Your task to perform on an android device: change your default location settings in chrome Image 0: 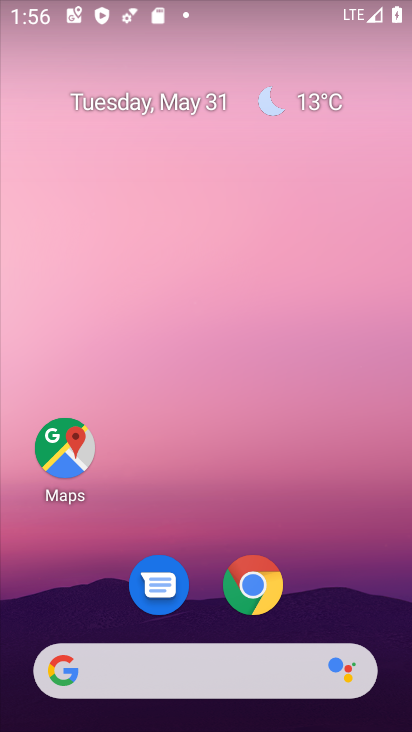
Step 0: click (264, 577)
Your task to perform on an android device: change your default location settings in chrome Image 1: 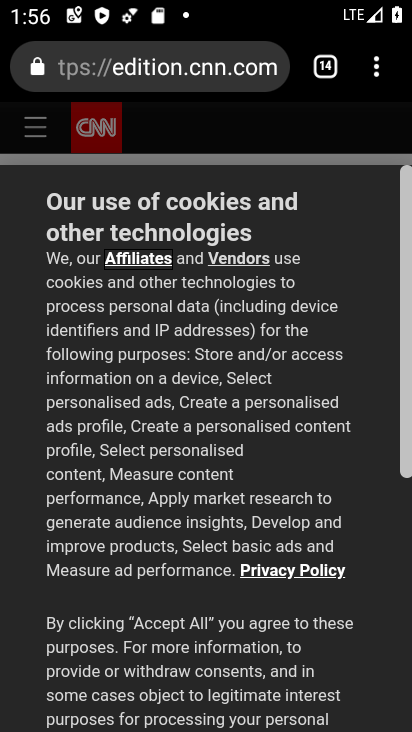
Step 1: click (374, 62)
Your task to perform on an android device: change your default location settings in chrome Image 2: 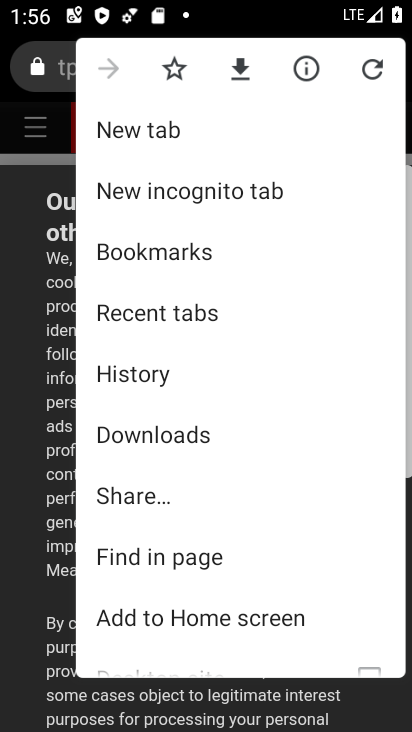
Step 2: drag from (205, 511) to (222, 149)
Your task to perform on an android device: change your default location settings in chrome Image 3: 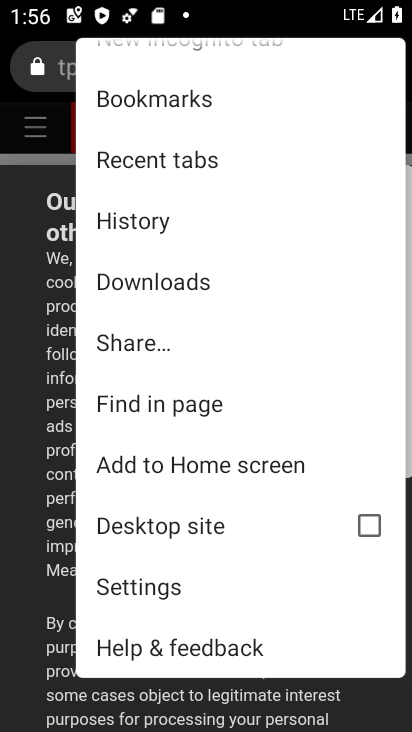
Step 3: click (210, 589)
Your task to perform on an android device: change your default location settings in chrome Image 4: 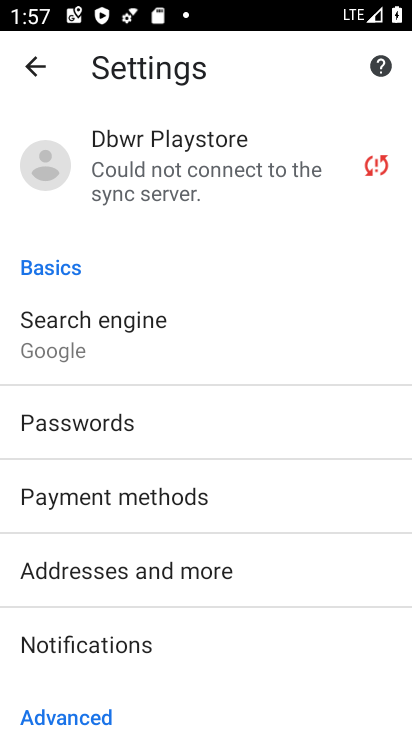
Step 4: drag from (229, 611) to (227, 286)
Your task to perform on an android device: change your default location settings in chrome Image 5: 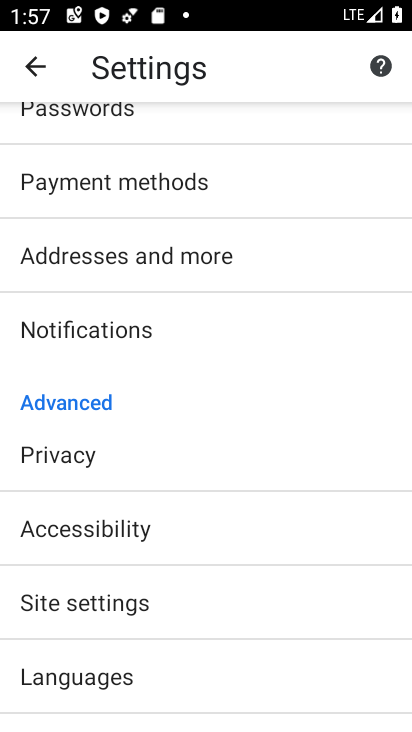
Step 5: click (185, 601)
Your task to perform on an android device: change your default location settings in chrome Image 6: 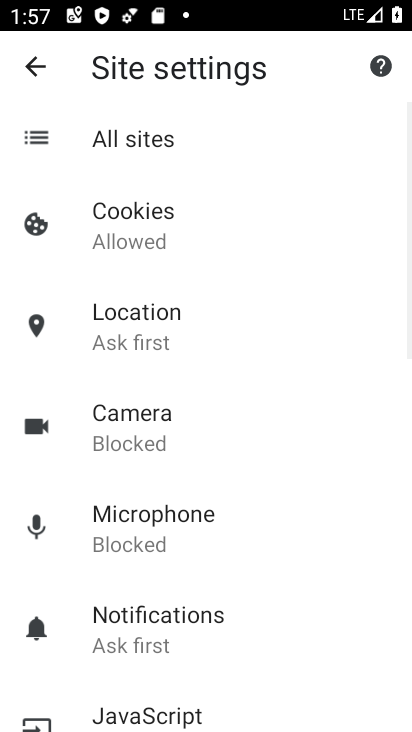
Step 6: click (186, 336)
Your task to perform on an android device: change your default location settings in chrome Image 7: 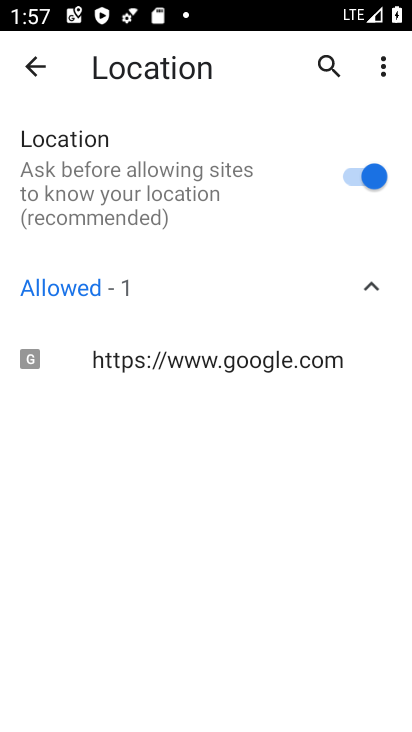
Step 7: click (352, 174)
Your task to perform on an android device: change your default location settings in chrome Image 8: 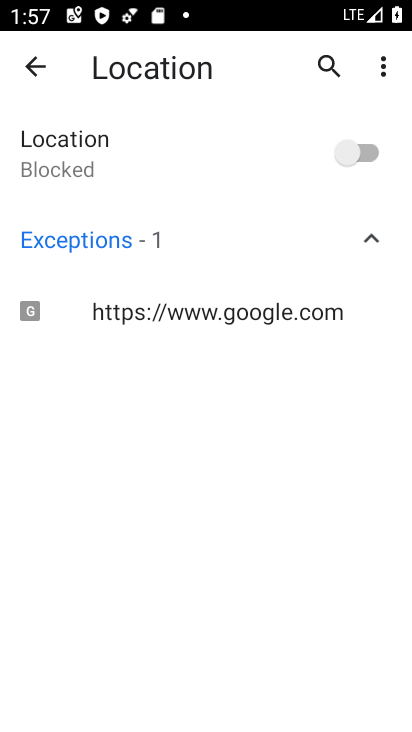
Step 8: task complete